Your task to perform on an android device: Go to Android settings Image 0: 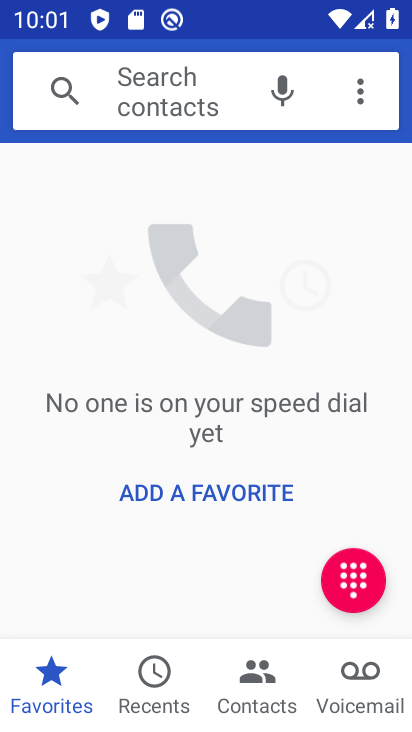
Step 0: press home button
Your task to perform on an android device: Go to Android settings Image 1: 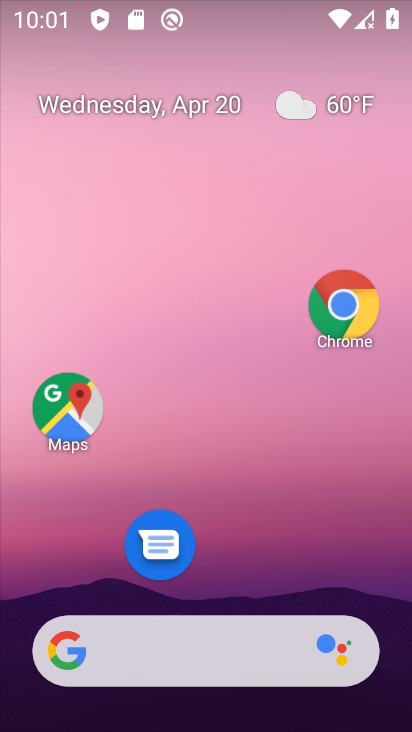
Step 1: drag from (276, 603) to (354, 34)
Your task to perform on an android device: Go to Android settings Image 2: 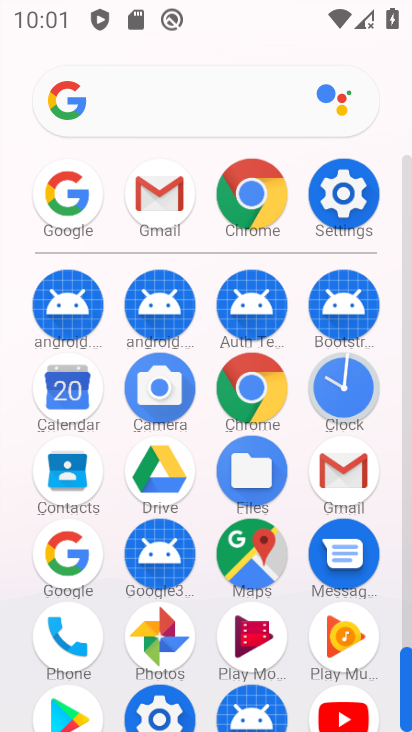
Step 2: click (332, 210)
Your task to perform on an android device: Go to Android settings Image 3: 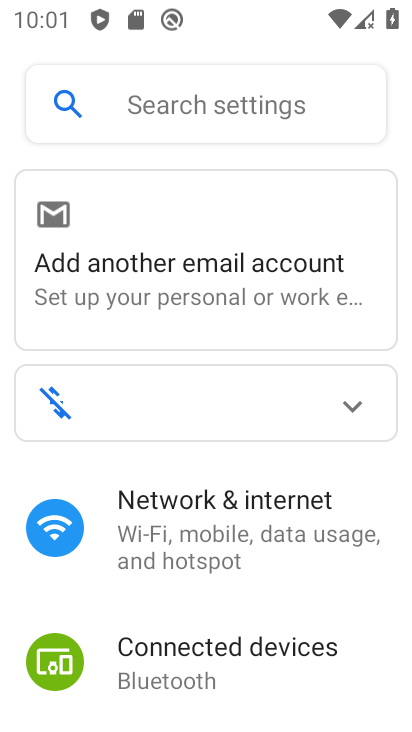
Step 3: drag from (241, 619) to (338, 139)
Your task to perform on an android device: Go to Android settings Image 4: 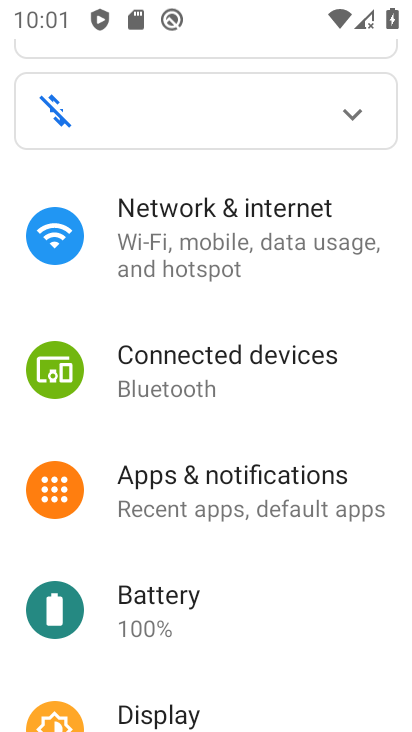
Step 4: drag from (215, 466) to (225, 367)
Your task to perform on an android device: Go to Android settings Image 5: 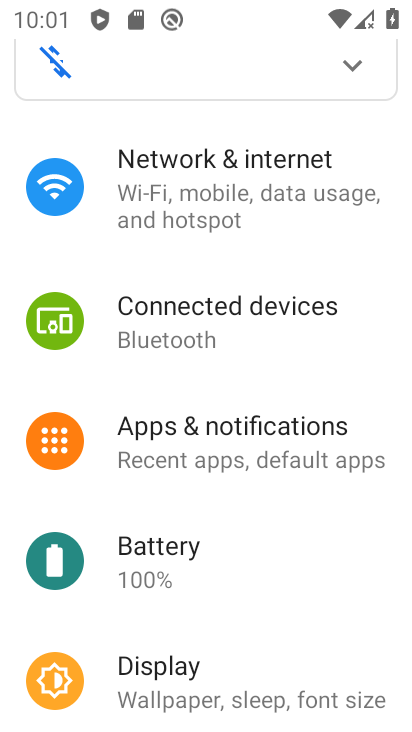
Step 5: drag from (170, 553) to (204, 241)
Your task to perform on an android device: Go to Android settings Image 6: 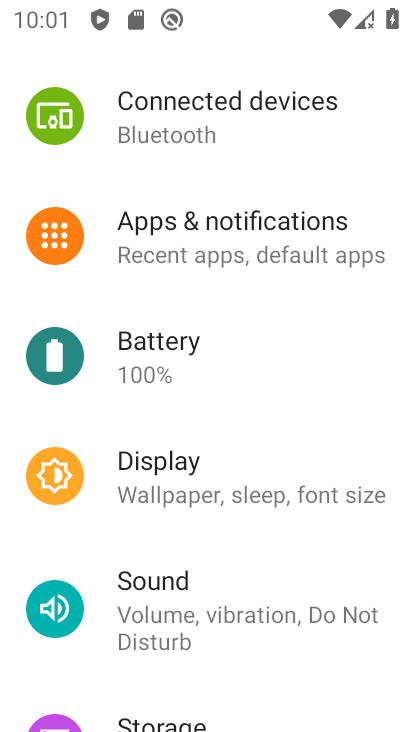
Step 6: drag from (203, 536) to (295, 163)
Your task to perform on an android device: Go to Android settings Image 7: 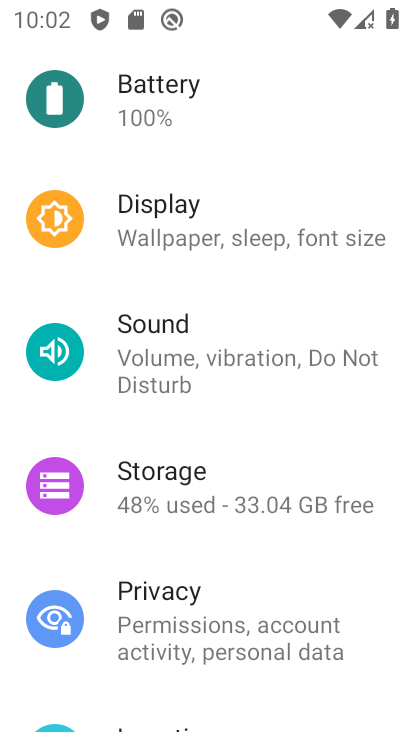
Step 7: drag from (238, 513) to (246, 197)
Your task to perform on an android device: Go to Android settings Image 8: 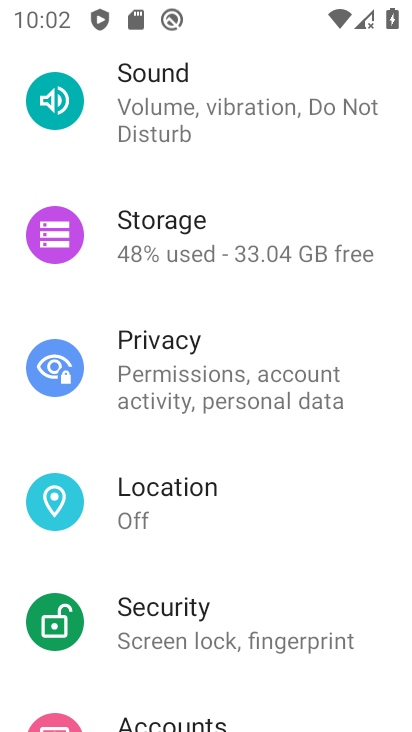
Step 8: drag from (215, 510) to (253, 76)
Your task to perform on an android device: Go to Android settings Image 9: 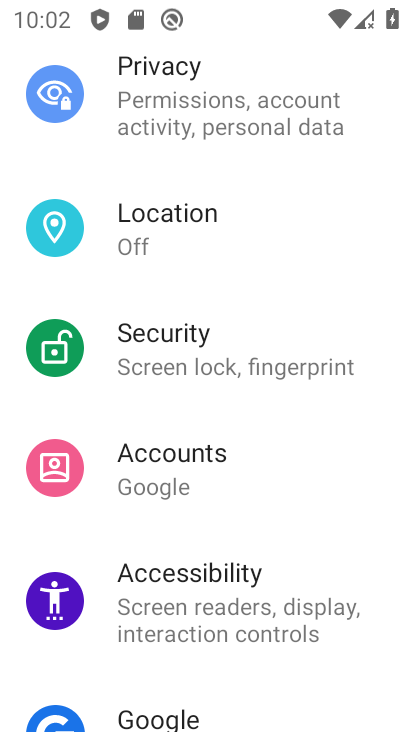
Step 9: drag from (211, 551) to (247, 9)
Your task to perform on an android device: Go to Android settings Image 10: 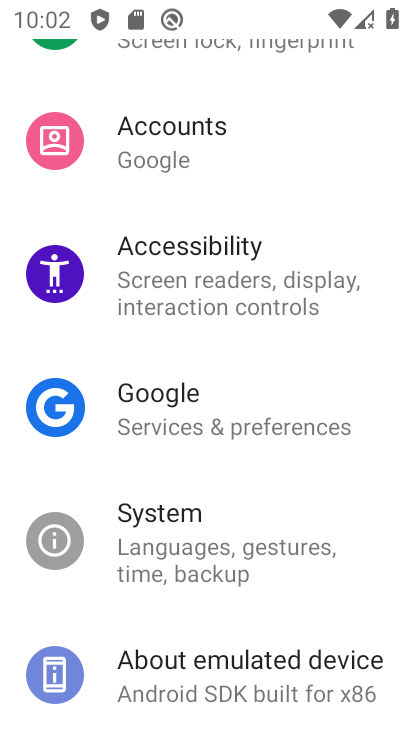
Step 10: click (222, 682)
Your task to perform on an android device: Go to Android settings Image 11: 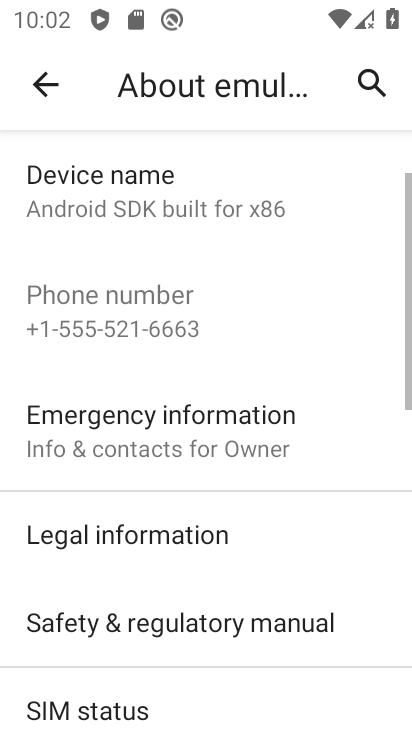
Step 11: task complete